Your task to perform on an android device: open chrome privacy settings Image 0: 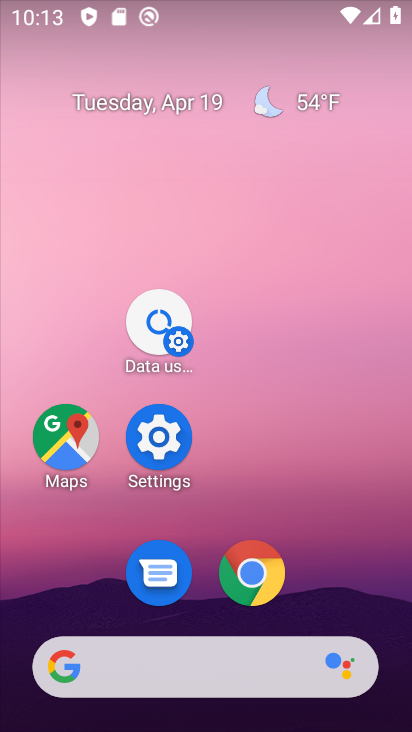
Step 0: click (256, 577)
Your task to perform on an android device: open chrome privacy settings Image 1: 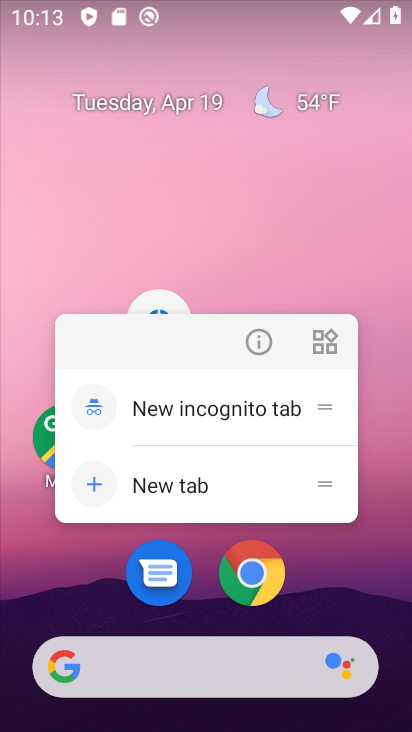
Step 1: click (256, 577)
Your task to perform on an android device: open chrome privacy settings Image 2: 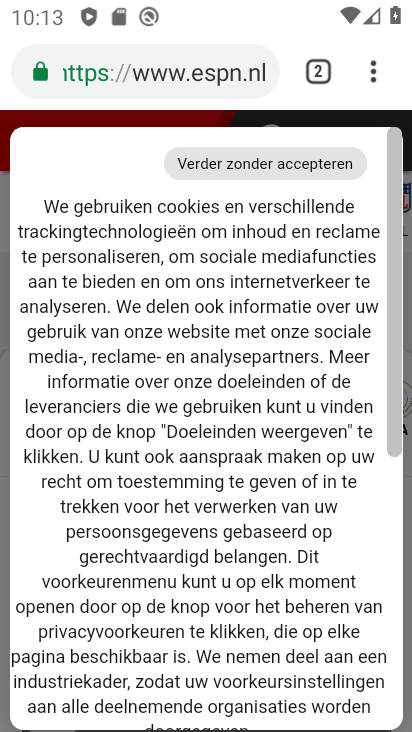
Step 2: click (373, 77)
Your task to perform on an android device: open chrome privacy settings Image 3: 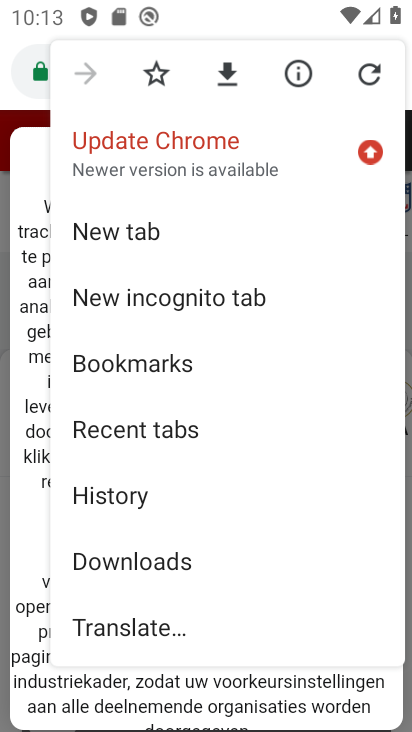
Step 3: drag from (225, 614) to (206, 196)
Your task to perform on an android device: open chrome privacy settings Image 4: 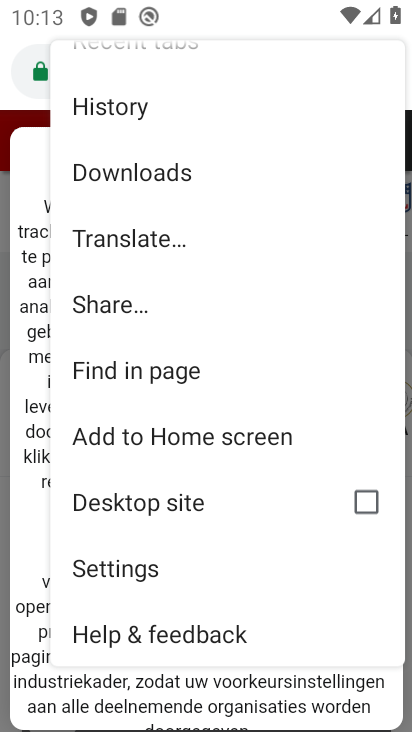
Step 4: click (98, 573)
Your task to perform on an android device: open chrome privacy settings Image 5: 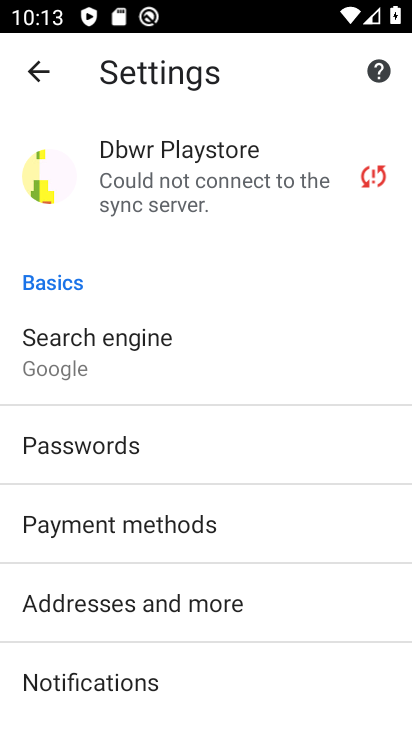
Step 5: drag from (234, 621) to (190, 183)
Your task to perform on an android device: open chrome privacy settings Image 6: 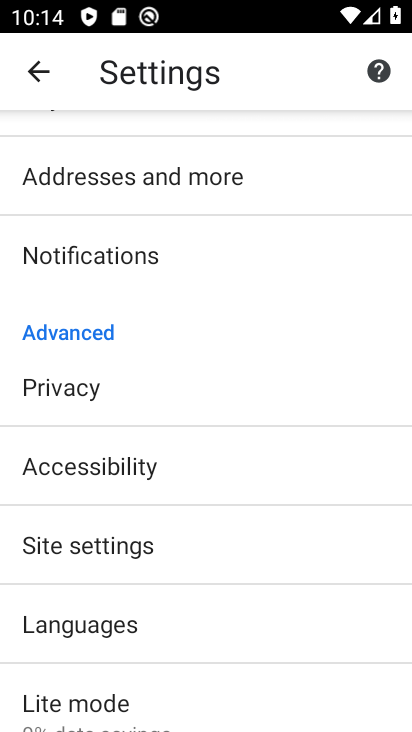
Step 6: click (57, 395)
Your task to perform on an android device: open chrome privacy settings Image 7: 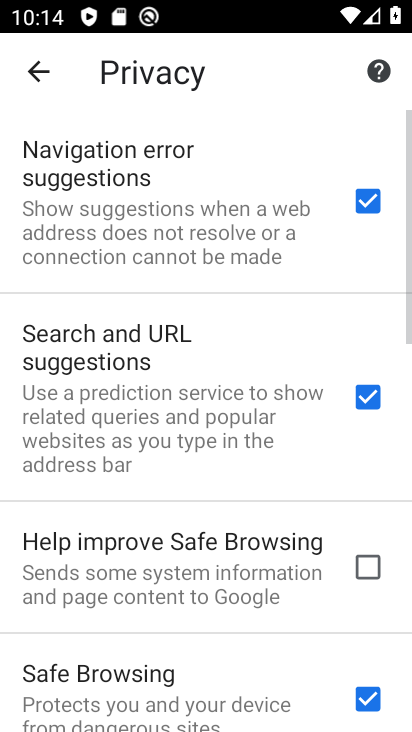
Step 7: task complete